Your task to perform on an android device: Open Google Chrome and click the shortcut for Amazon.com Image 0: 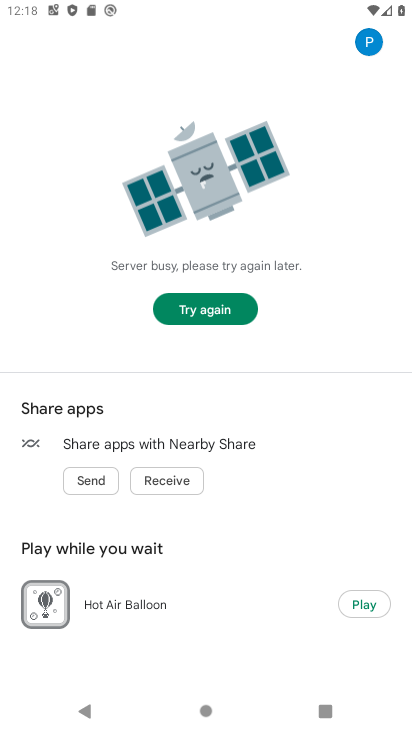
Step 0: press home button
Your task to perform on an android device: Open Google Chrome and click the shortcut for Amazon.com Image 1: 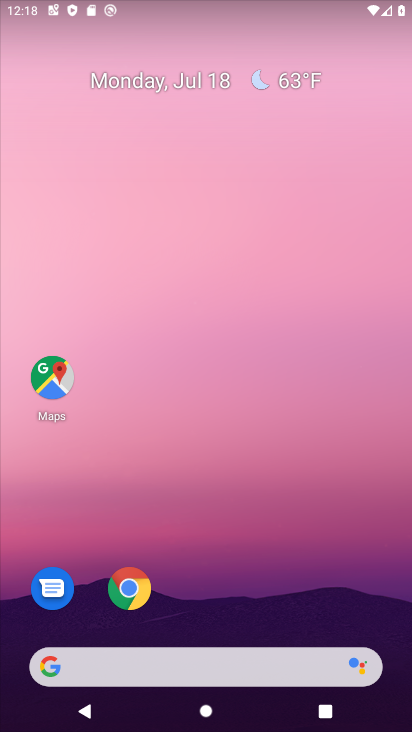
Step 1: drag from (239, 709) to (254, 277)
Your task to perform on an android device: Open Google Chrome and click the shortcut for Amazon.com Image 2: 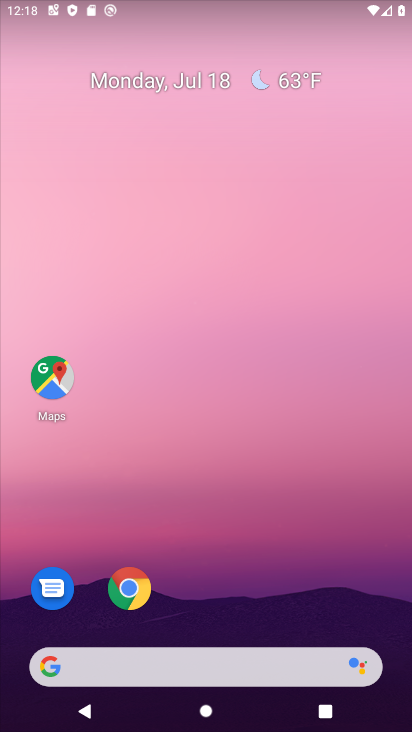
Step 2: drag from (233, 726) to (233, 204)
Your task to perform on an android device: Open Google Chrome and click the shortcut for Amazon.com Image 3: 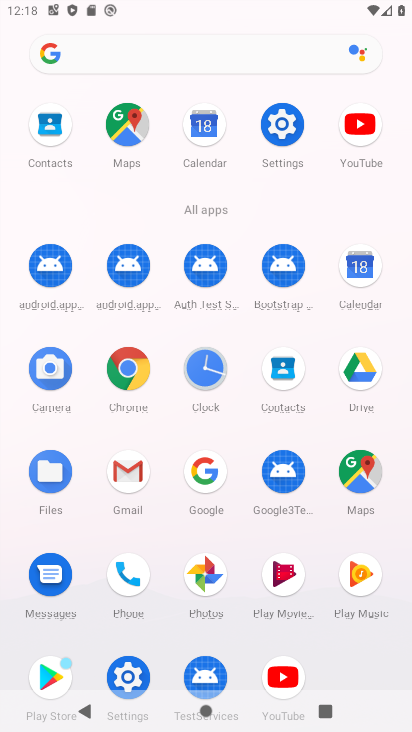
Step 3: click (129, 371)
Your task to perform on an android device: Open Google Chrome and click the shortcut for Amazon.com Image 4: 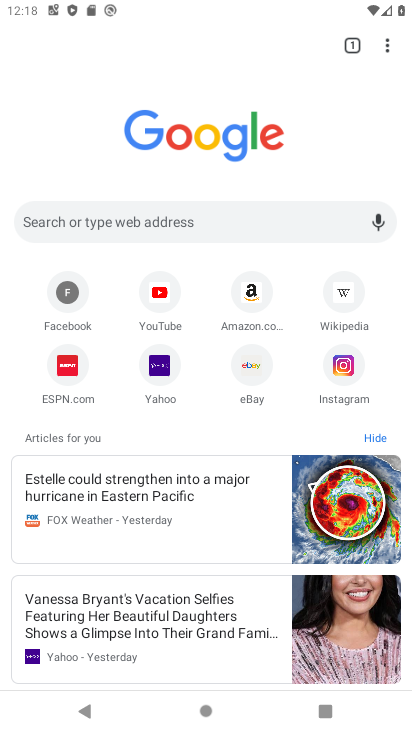
Step 4: click (251, 288)
Your task to perform on an android device: Open Google Chrome and click the shortcut for Amazon.com Image 5: 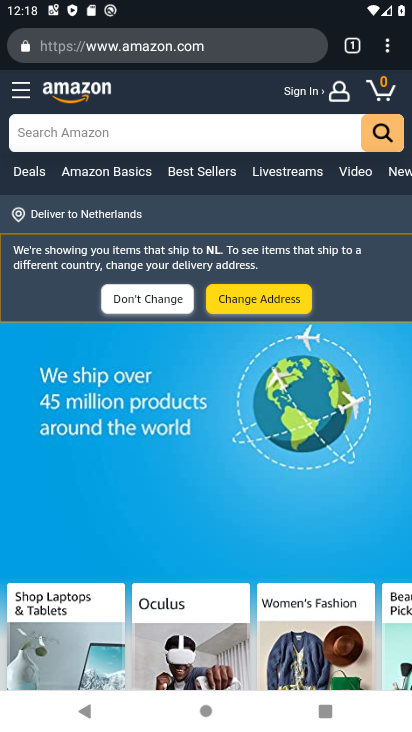
Step 5: task complete